Your task to perform on an android device: turn on translation in the chrome app Image 0: 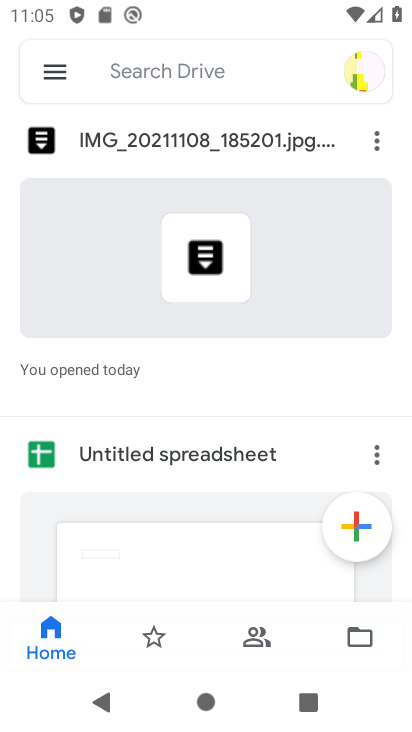
Step 0: press home button
Your task to perform on an android device: turn on translation in the chrome app Image 1: 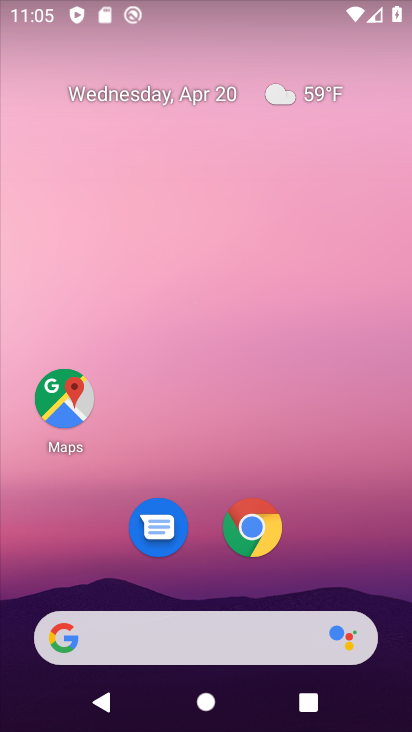
Step 1: drag from (381, 561) to (397, 113)
Your task to perform on an android device: turn on translation in the chrome app Image 2: 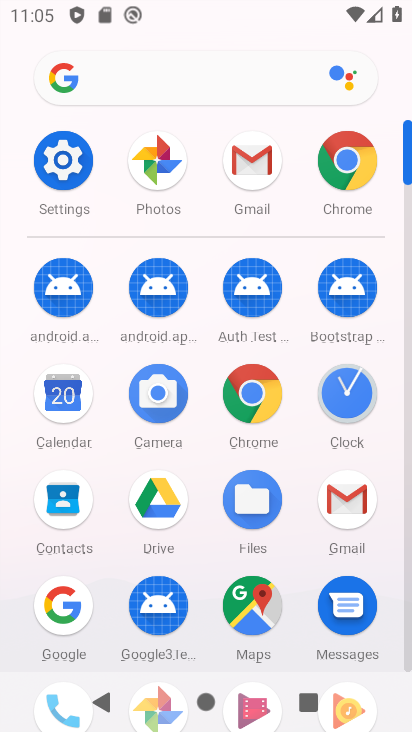
Step 2: click (264, 408)
Your task to perform on an android device: turn on translation in the chrome app Image 3: 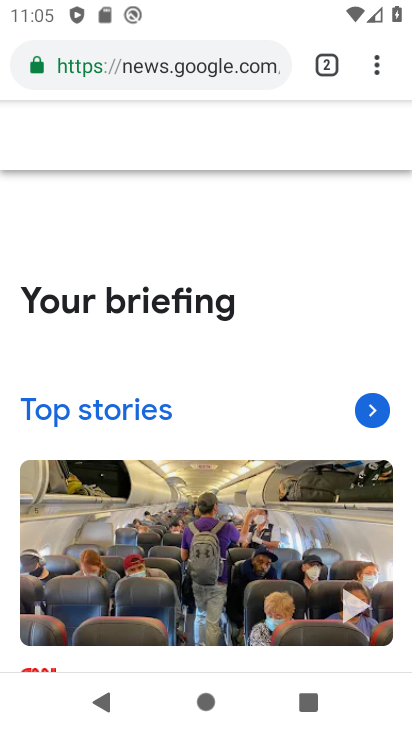
Step 3: drag from (380, 72) to (195, 580)
Your task to perform on an android device: turn on translation in the chrome app Image 4: 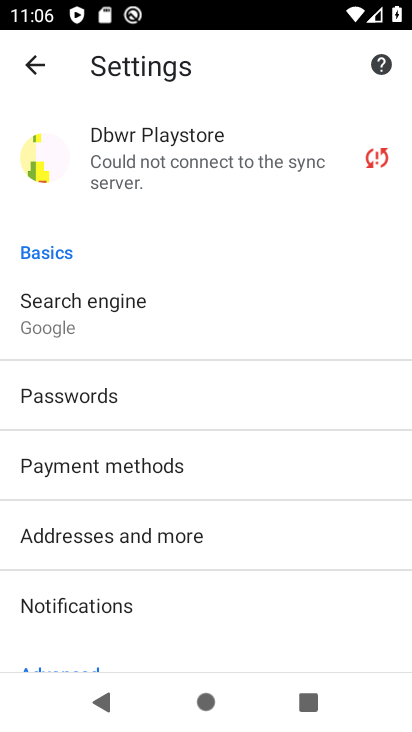
Step 4: drag from (305, 584) to (353, 325)
Your task to perform on an android device: turn on translation in the chrome app Image 5: 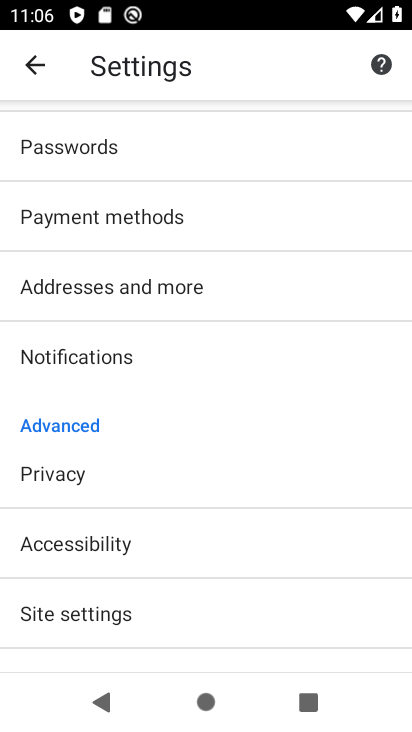
Step 5: drag from (318, 594) to (341, 353)
Your task to perform on an android device: turn on translation in the chrome app Image 6: 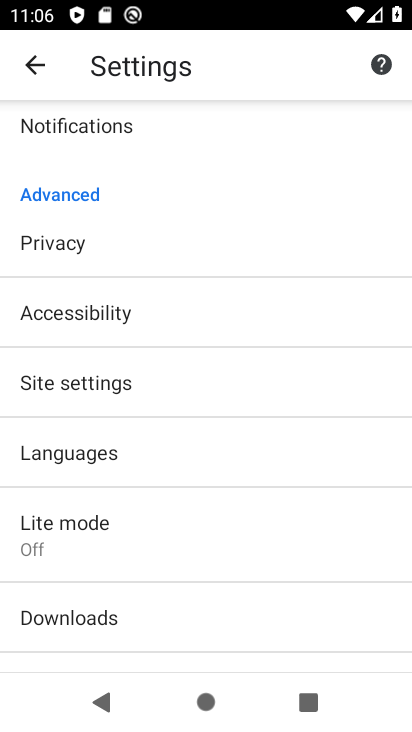
Step 6: click (92, 457)
Your task to perform on an android device: turn on translation in the chrome app Image 7: 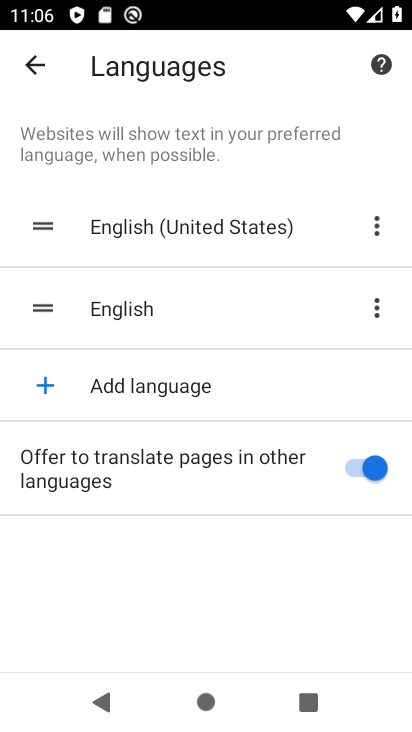
Step 7: task complete